Your task to perform on an android device: Check the news Image 0: 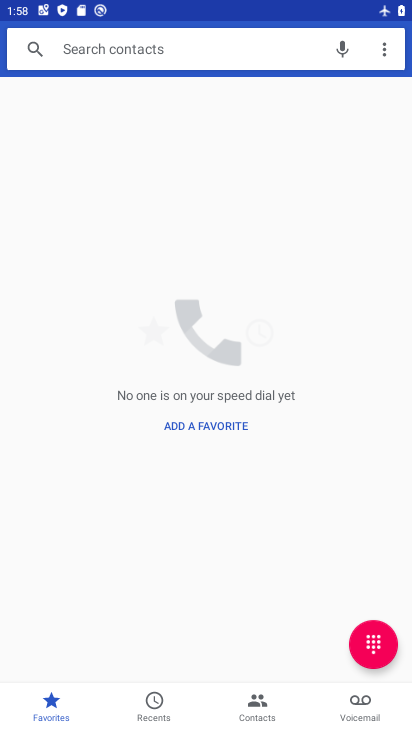
Step 0: press back button
Your task to perform on an android device: Check the news Image 1: 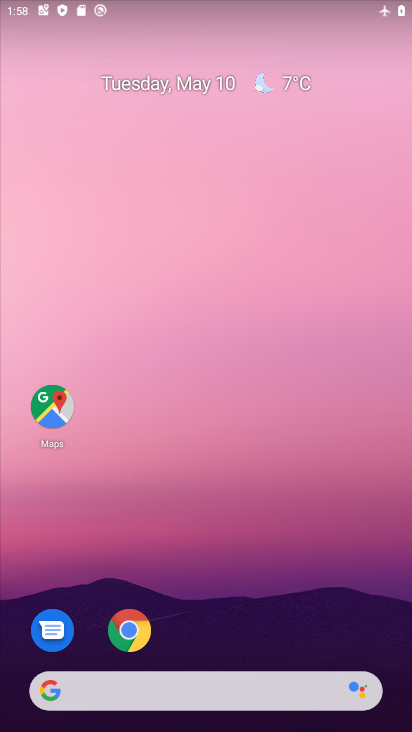
Step 1: drag from (252, 547) to (196, 35)
Your task to perform on an android device: Check the news Image 2: 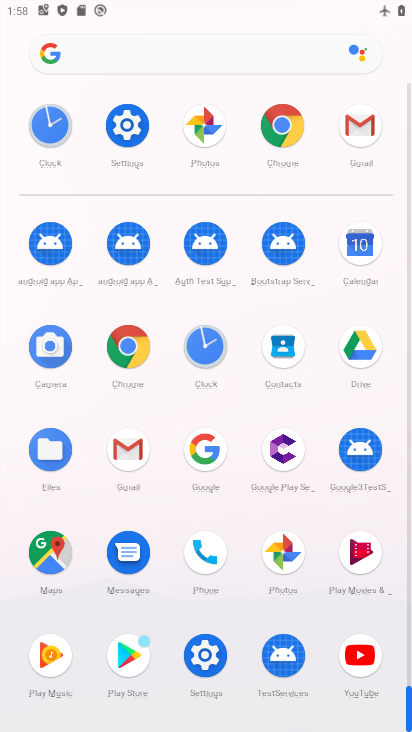
Step 2: click (127, 341)
Your task to perform on an android device: Check the news Image 3: 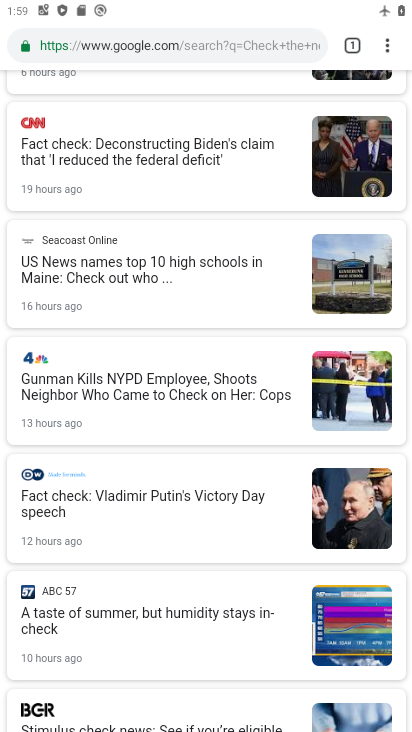
Step 3: task complete